Your task to perform on an android device: Search for logitech g910 on ebay.com, select the first entry, add it to the cart, then select checkout. Image 0: 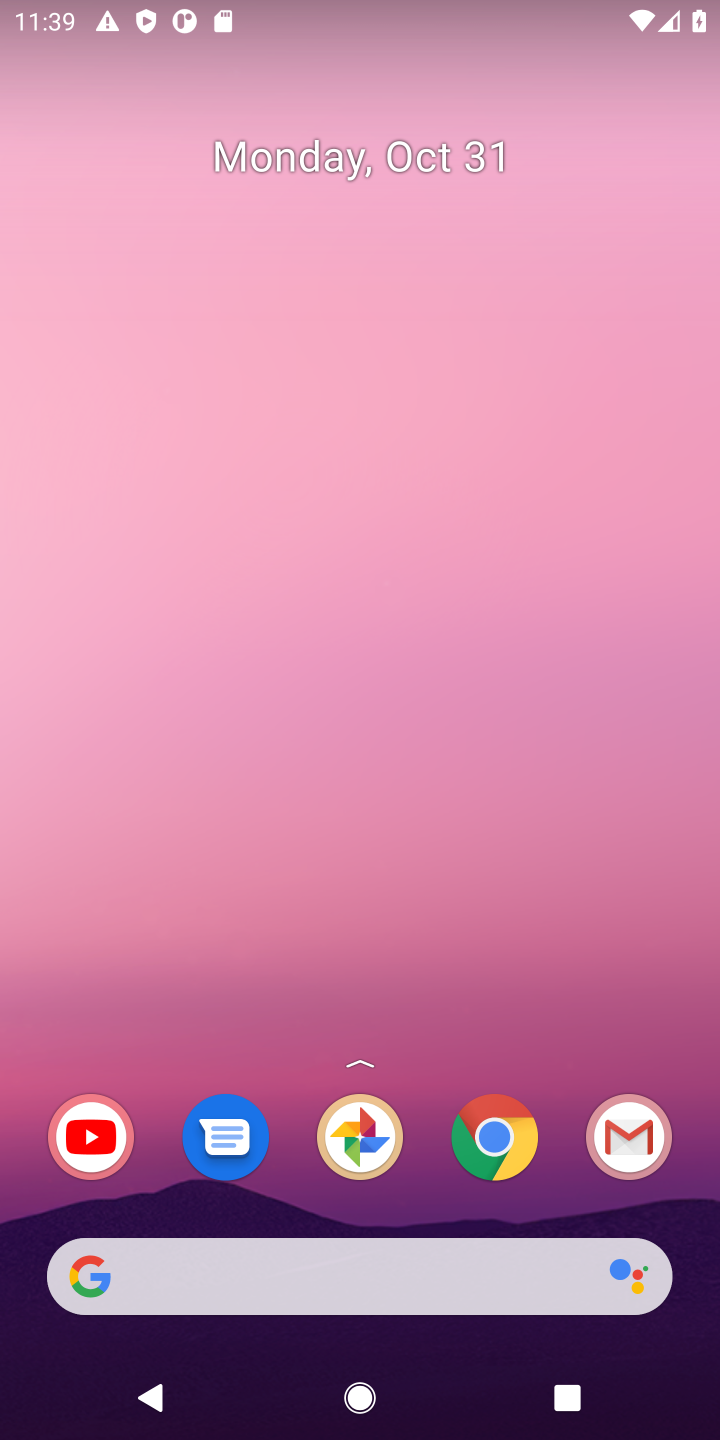
Step 0: click (495, 1138)
Your task to perform on an android device: Search for logitech g910 on ebay.com, select the first entry, add it to the cart, then select checkout. Image 1: 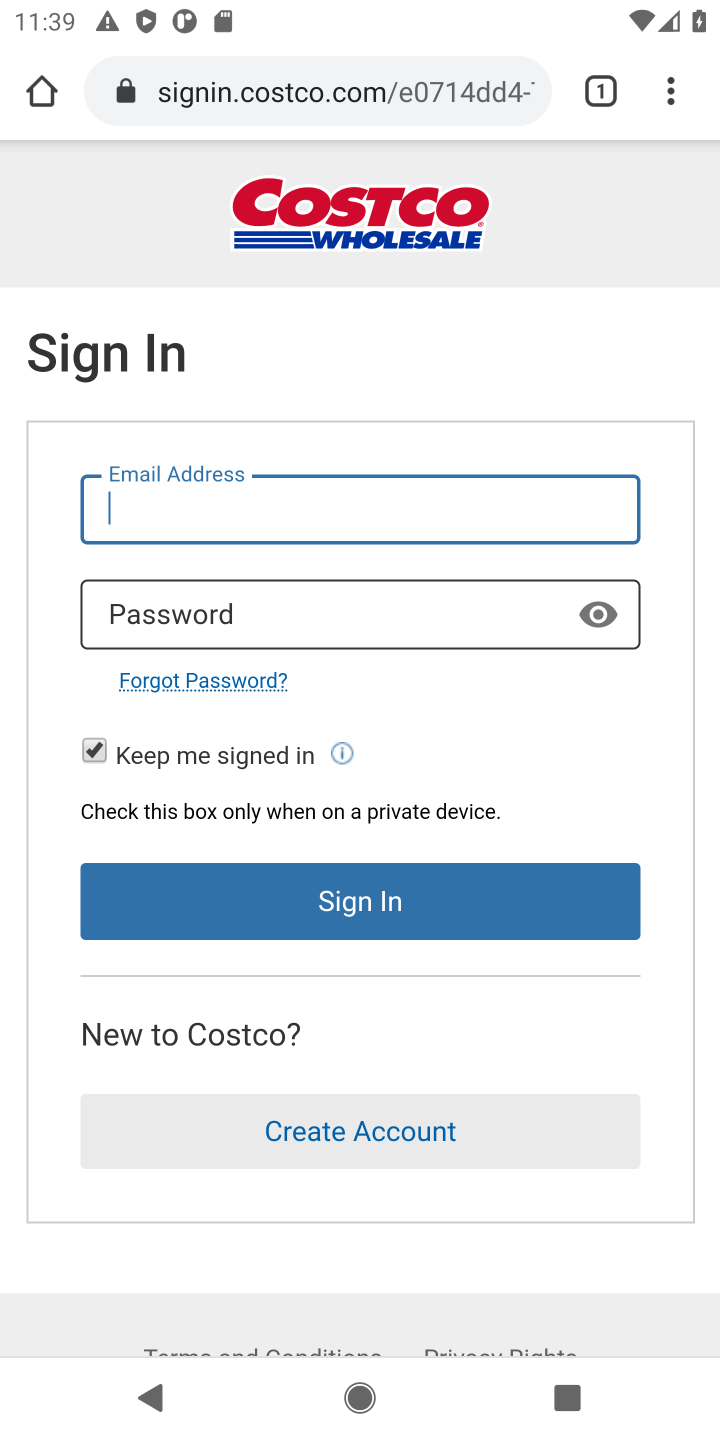
Step 1: click (362, 82)
Your task to perform on an android device: Search for logitech g910 on ebay.com, select the first entry, add it to the cart, then select checkout. Image 2: 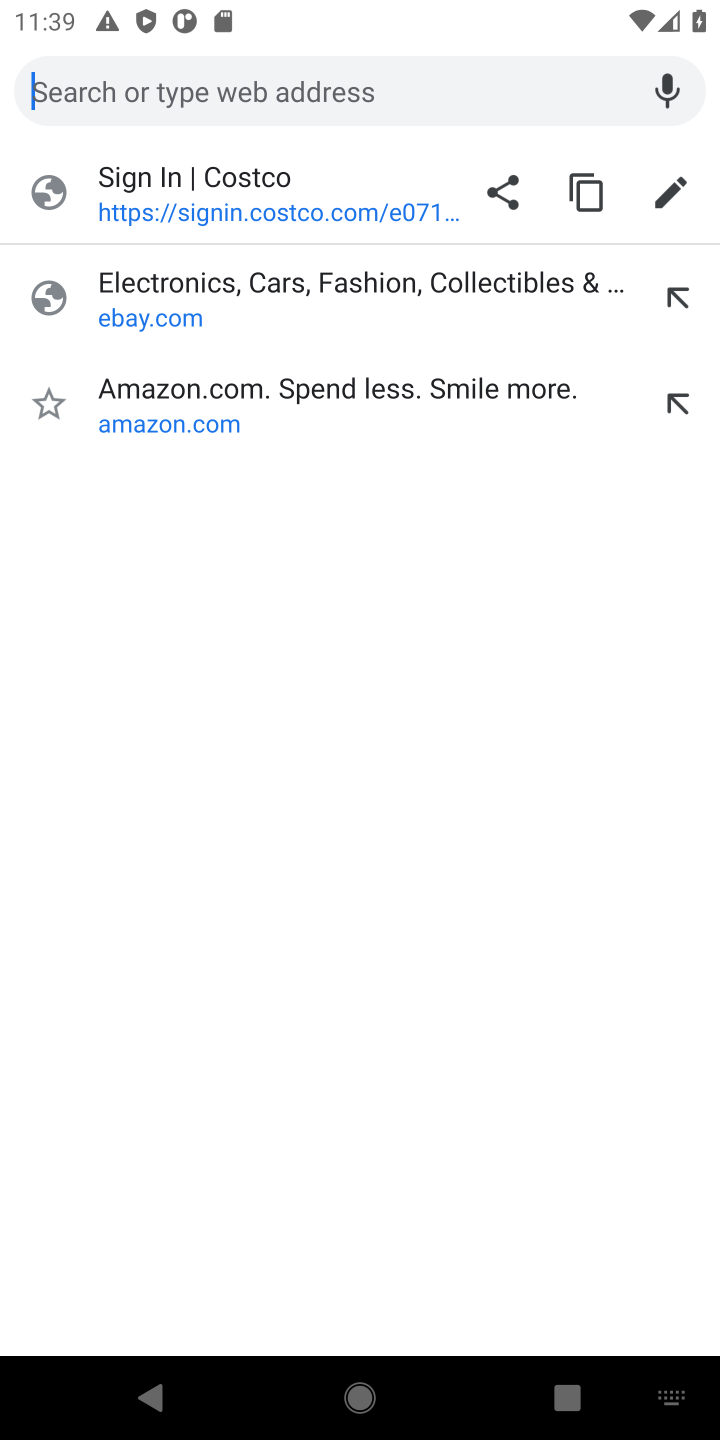
Step 2: type "ebay.com"
Your task to perform on an android device: Search for logitech g910 on ebay.com, select the first entry, add it to the cart, then select checkout. Image 3: 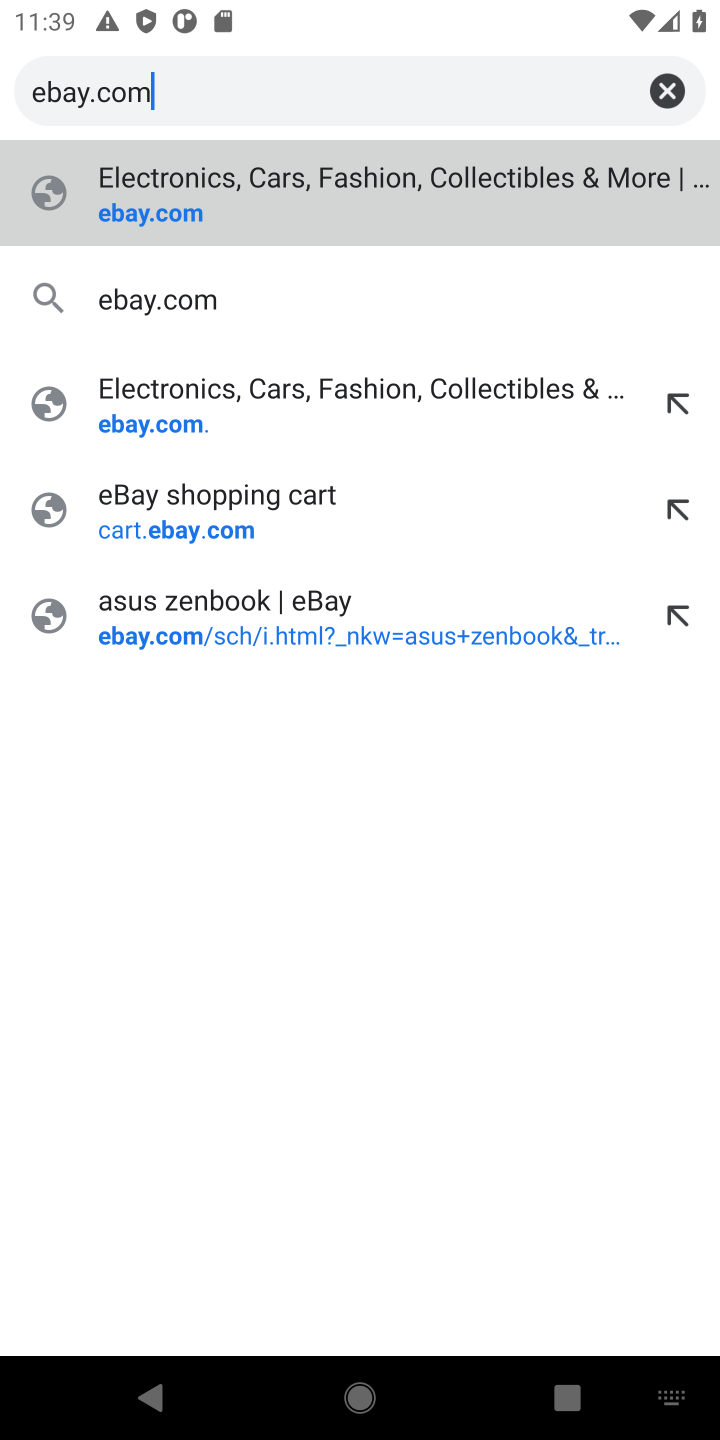
Step 3: click (181, 306)
Your task to perform on an android device: Search for logitech g910 on ebay.com, select the first entry, add it to the cart, then select checkout. Image 4: 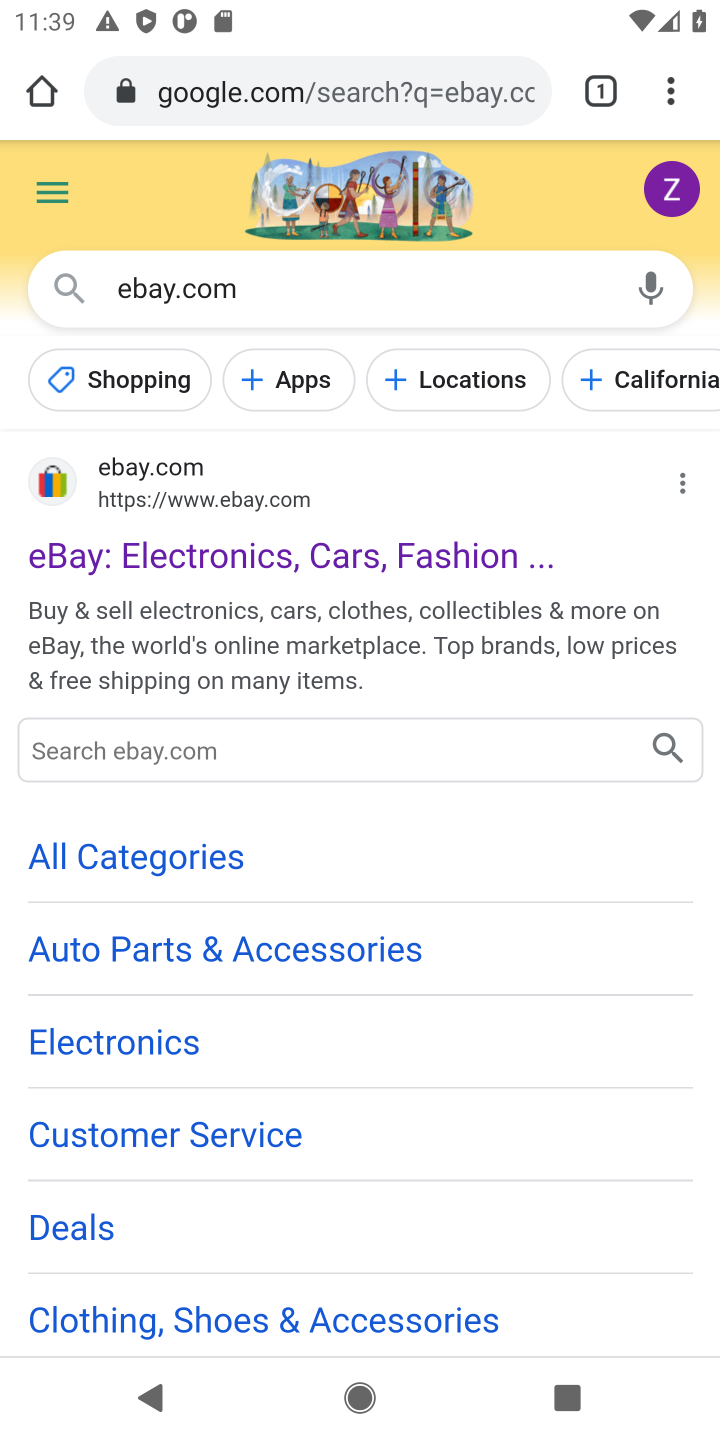
Step 4: click (182, 558)
Your task to perform on an android device: Search for logitech g910 on ebay.com, select the first entry, add it to the cart, then select checkout. Image 5: 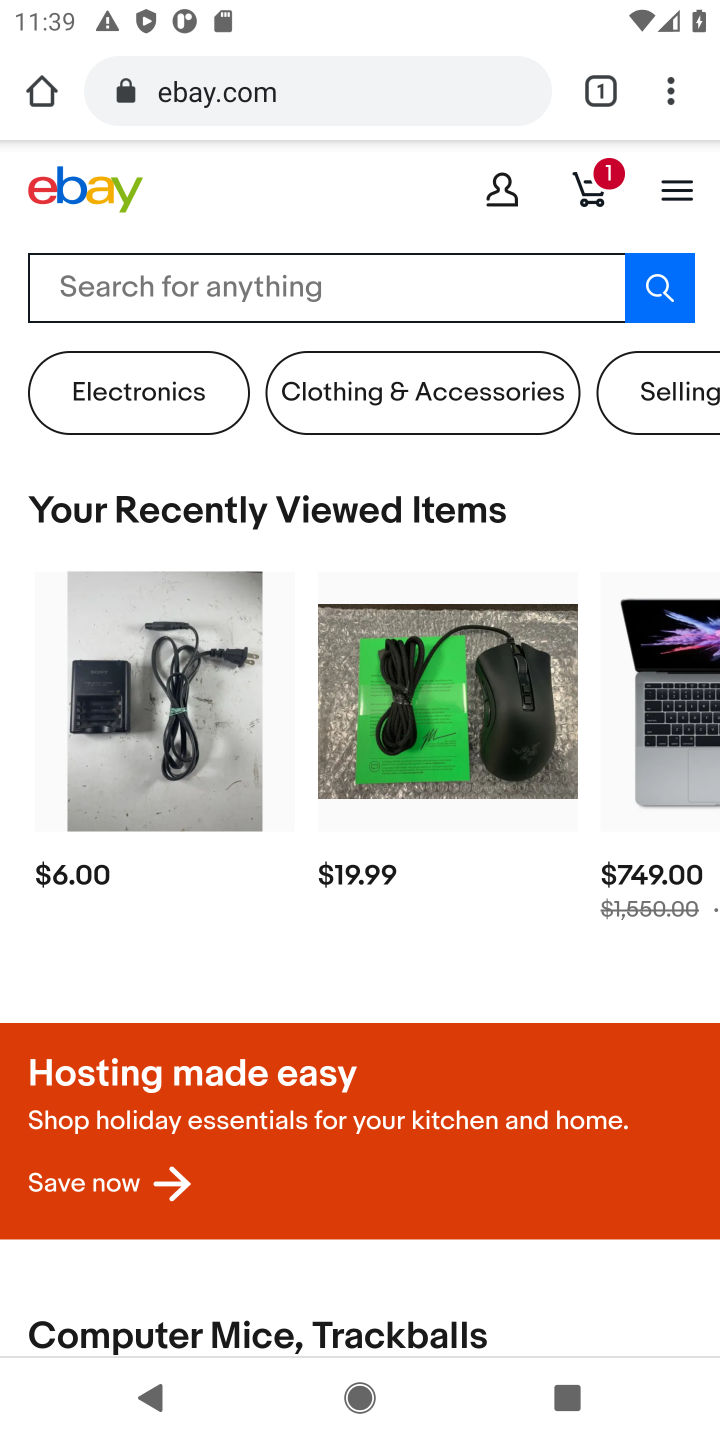
Step 5: click (451, 293)
Your task to perform on an android device: Search for logitech g910 on ebay.com, select the first entry, add it to the cart, then select checkout. Image 6: 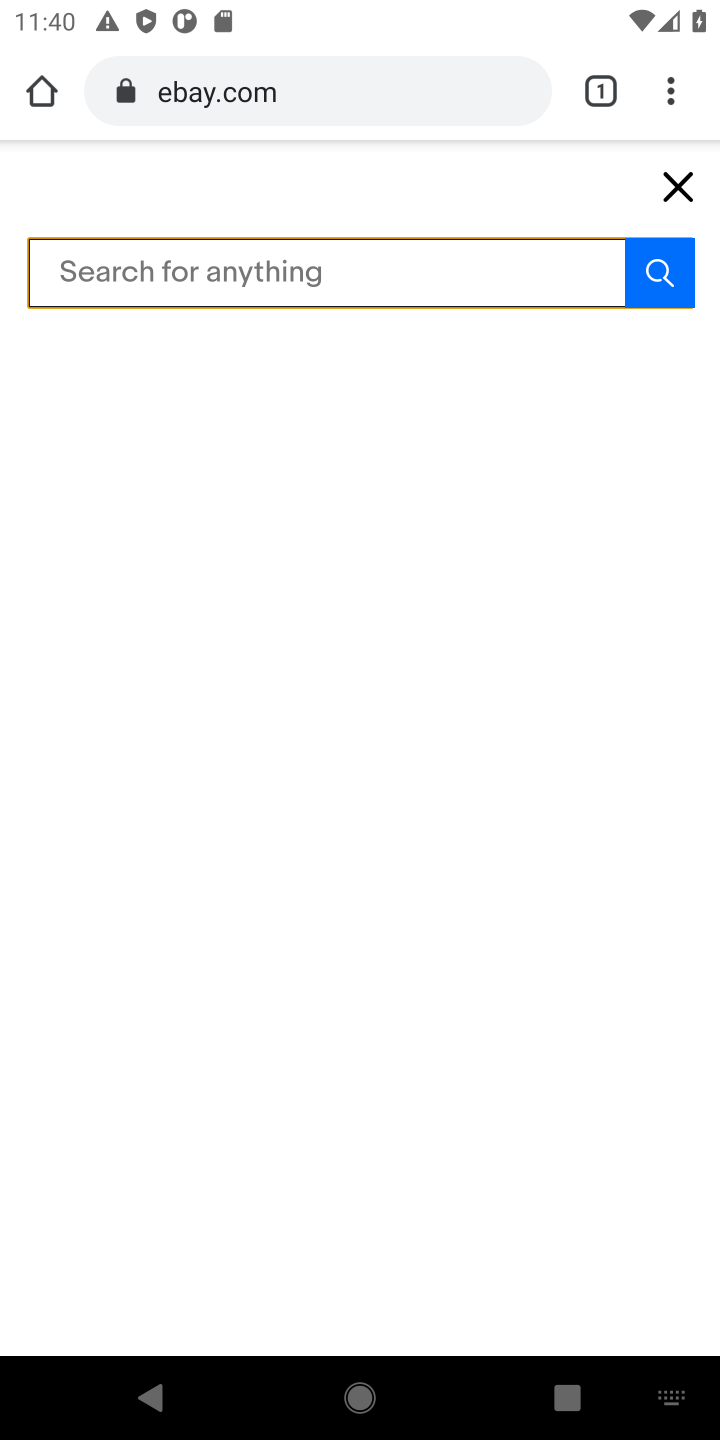
Step 6: type "logitech g910"
Your task to perform on an android device: Search for logitech g910 on ebay.com, select the first entry, add it to the cart, then select checkout. Image 7: 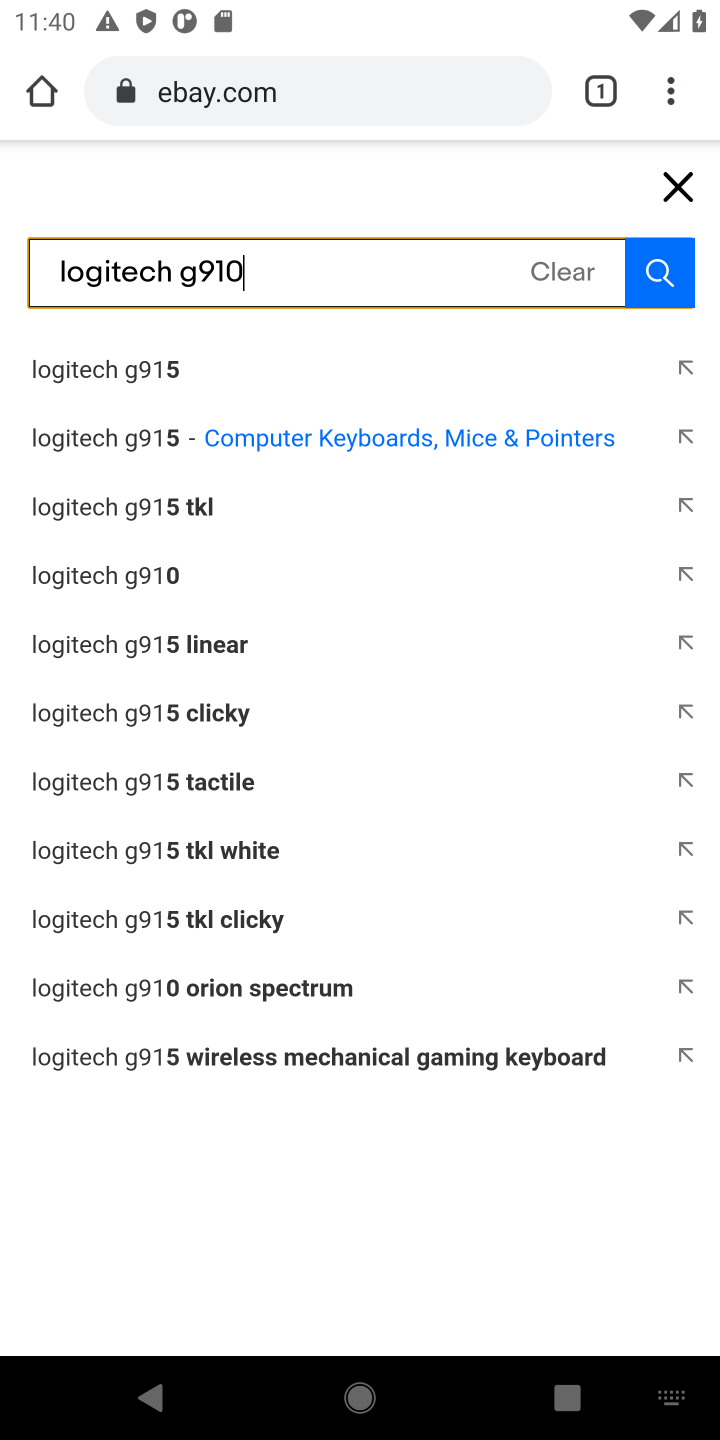
Step 7: click (653, 269)
Your task to perform on an android device: Search for logitech g910 on ebay.com, select the first entry, add it to the cart, then select checkout. Image 8: 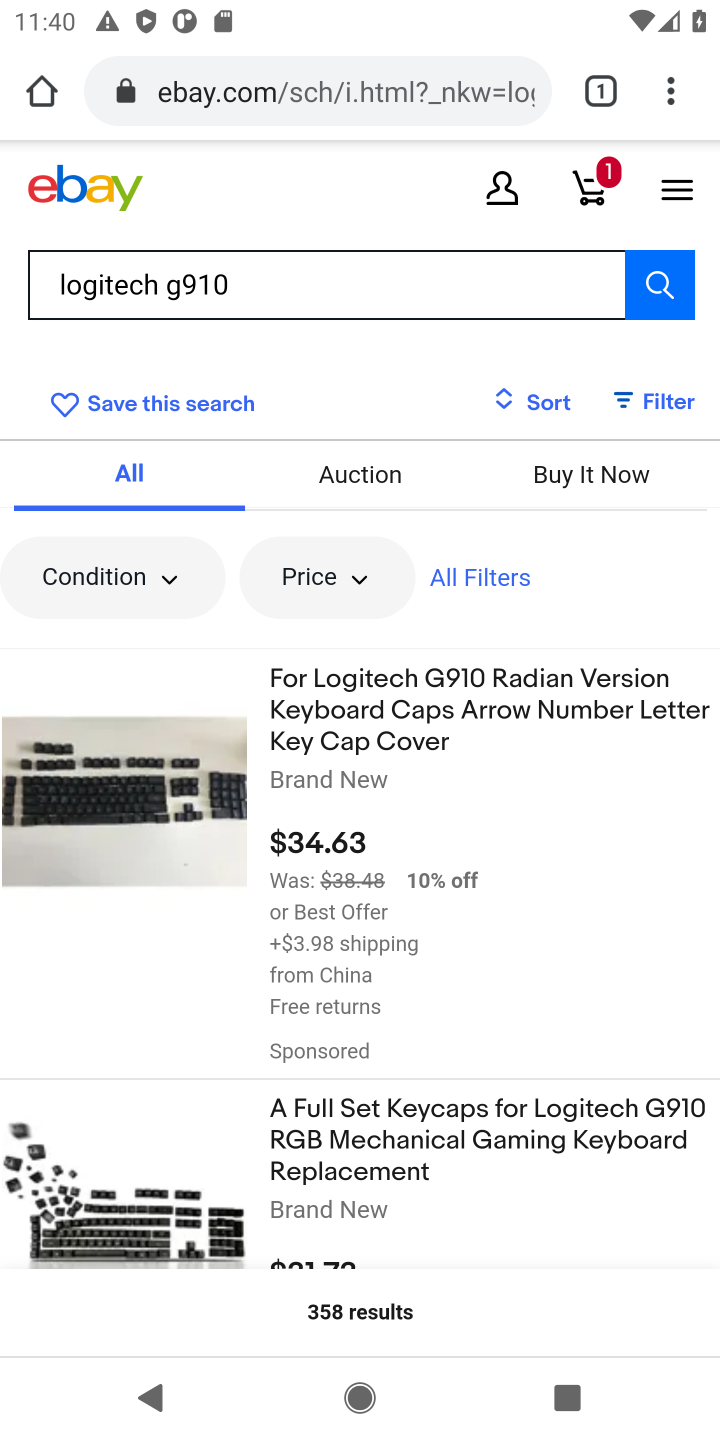
Step 8: click (482, 706)
Your task to perform on an android device: Search for logitech g910 on ebay.com, select the first entry, add it to the cart, then select checkout. Image 9: 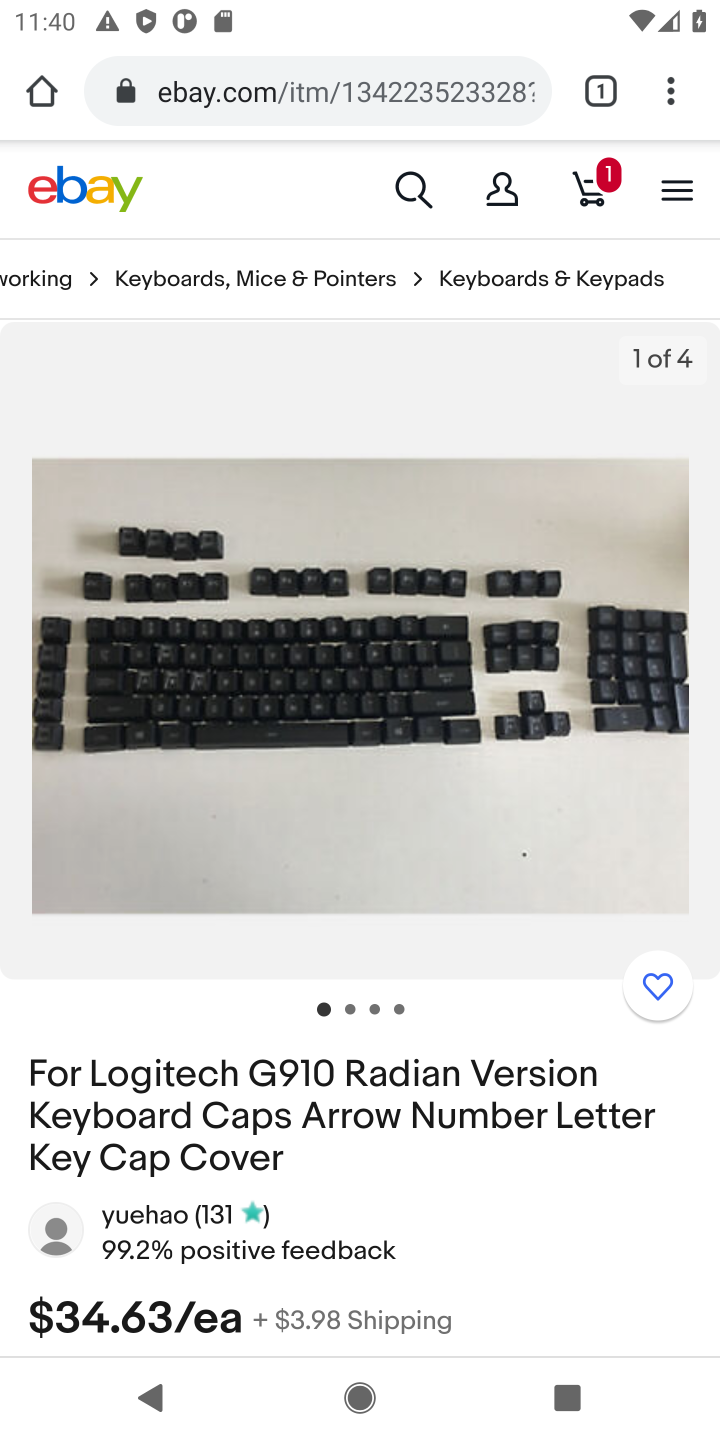
Step 9: drag from (468, 1238) to (520, 423)
Your task to perform on an android device: Search for logitech g910 on ebay.com, select the first entry, add it to the cart, then select checkout. Image 10: 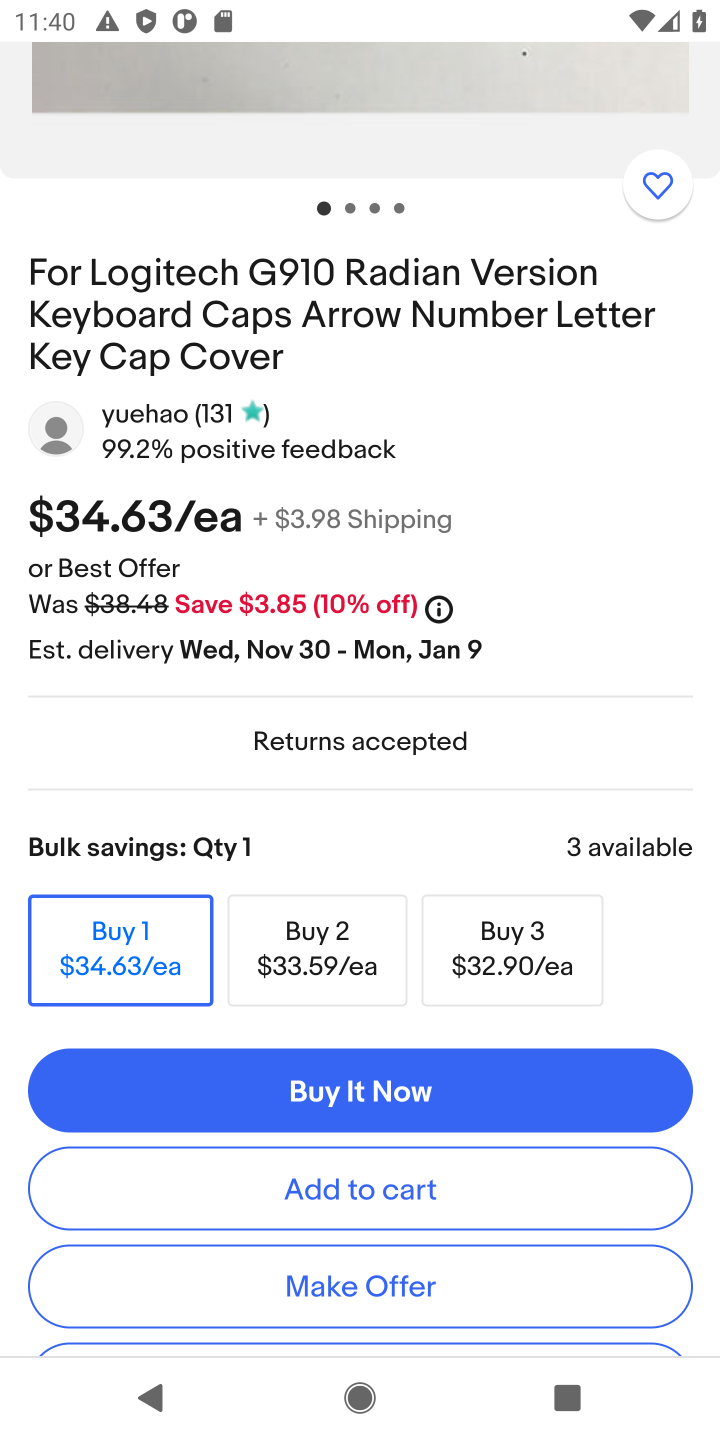
Step 10: click (356, 1187)
Your task to perform on an android device: Search for logitech g910 on ebay.com, select the first entry, add it to the cart, then select checkout. Image 11: 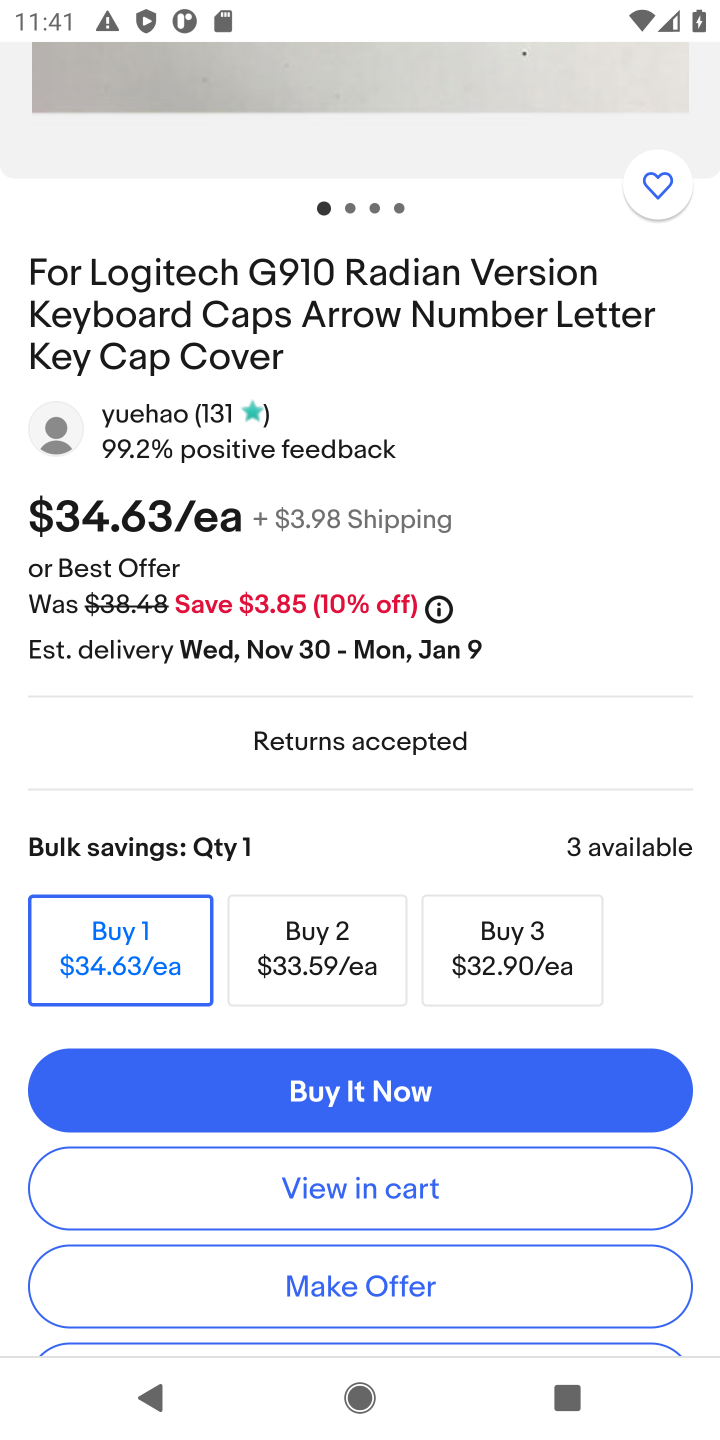
Step 11: click (356, 1187)
Your task to perform on an android device: Search for logitech g910 on ebay.com, select the first entry, add it to the cart, then select checkout. Image 12: 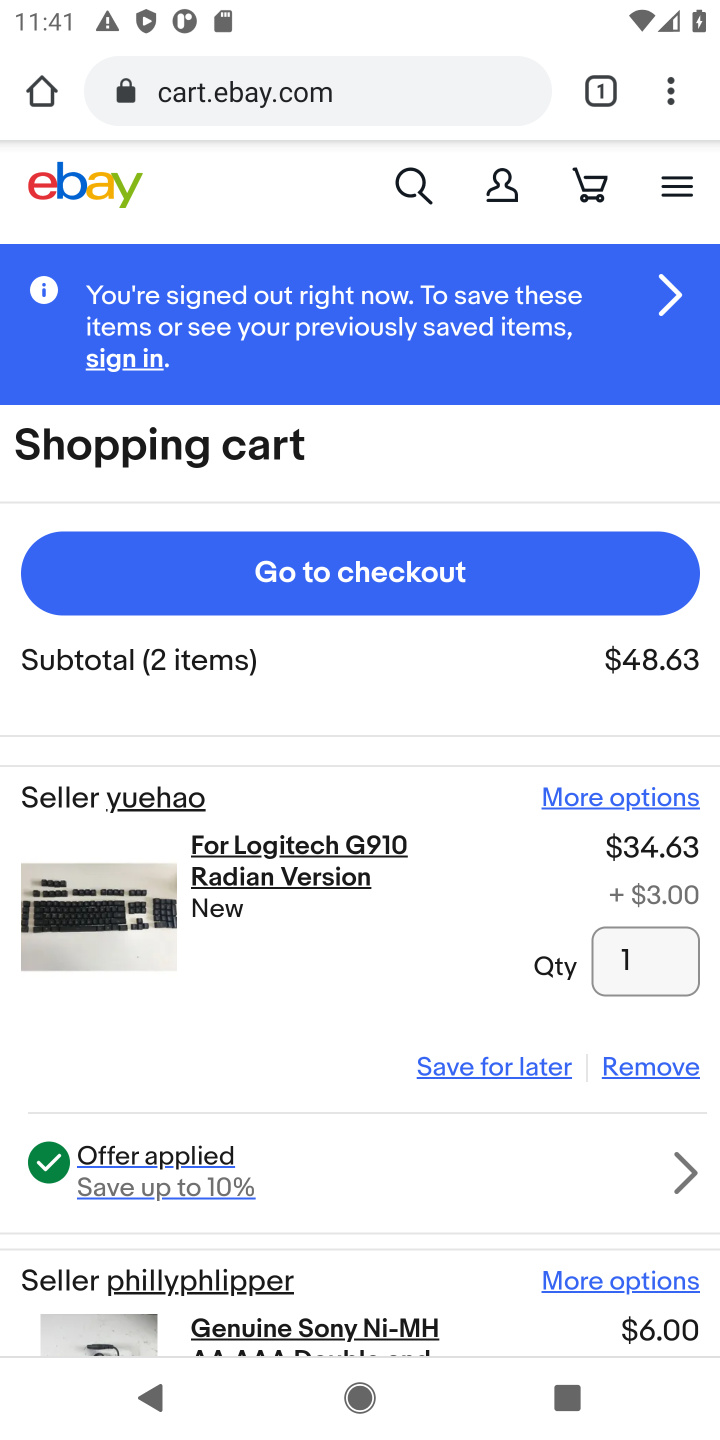
Step 12: click (364, 577)
Your task to perform on an android device: Search for logitech g910 on ebay.com, select the first entry, add it to the cart, then select checkout. Image 13: 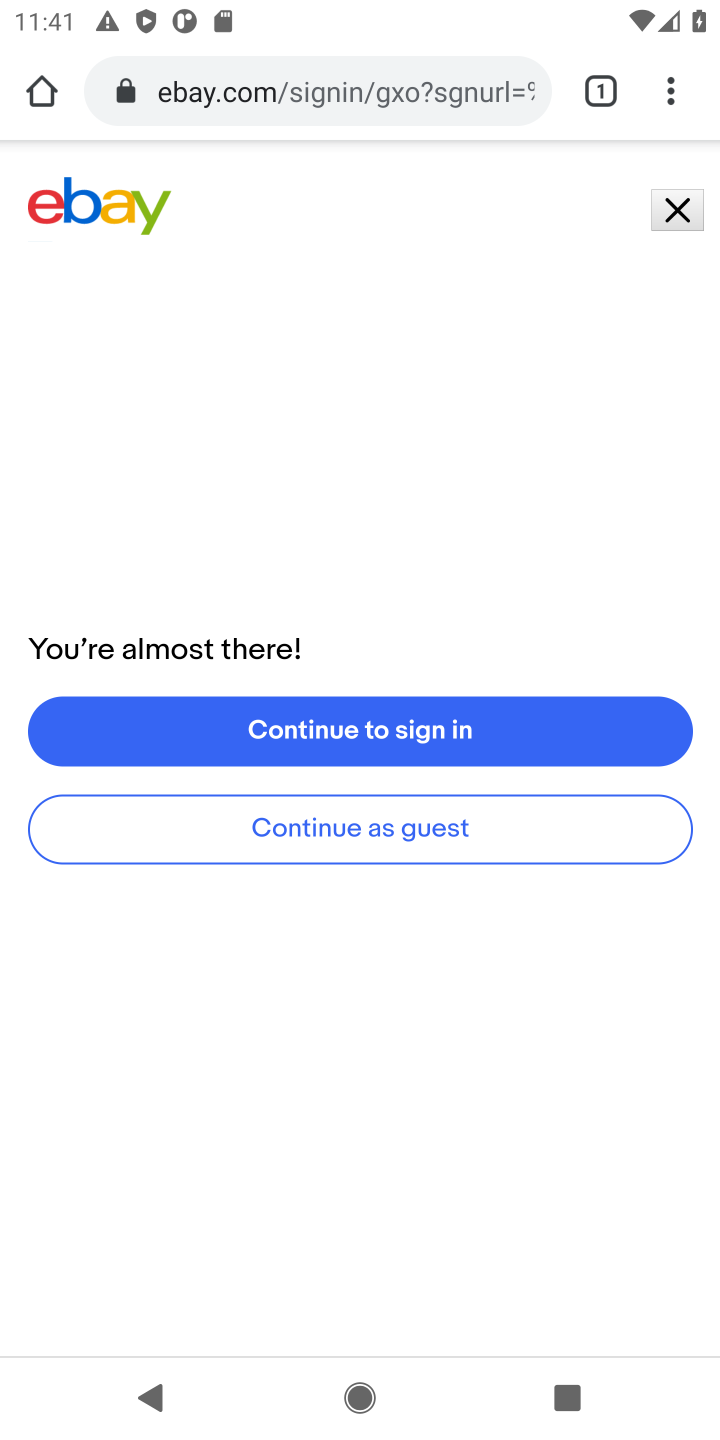
Step 13: task complete